Your task to perform on an android device: turn on notifications settings in the gmail app Image 0: 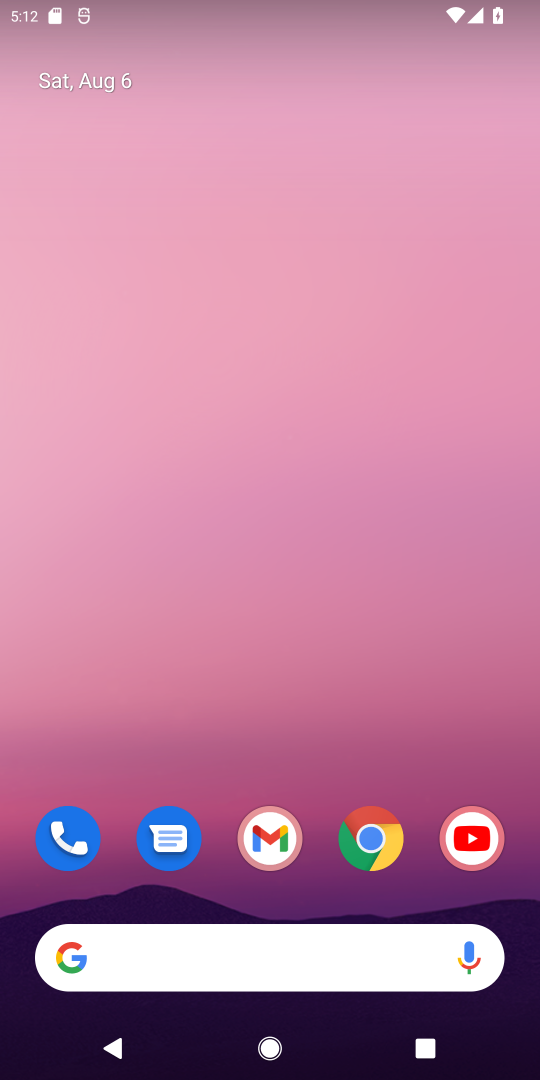
Step 0: press home button
Your task to perform on an android device: turn on notifications settings in the gmail app Image 1: 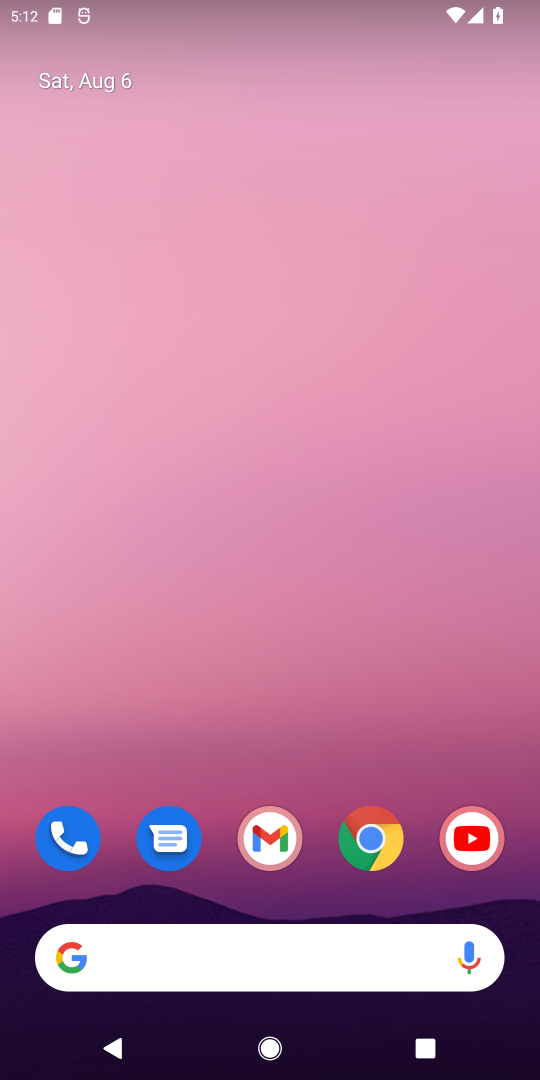
Step 1: click (272, 856)
Your task to perform on an android device: turn on notifications settings in the gmail app Image 2: 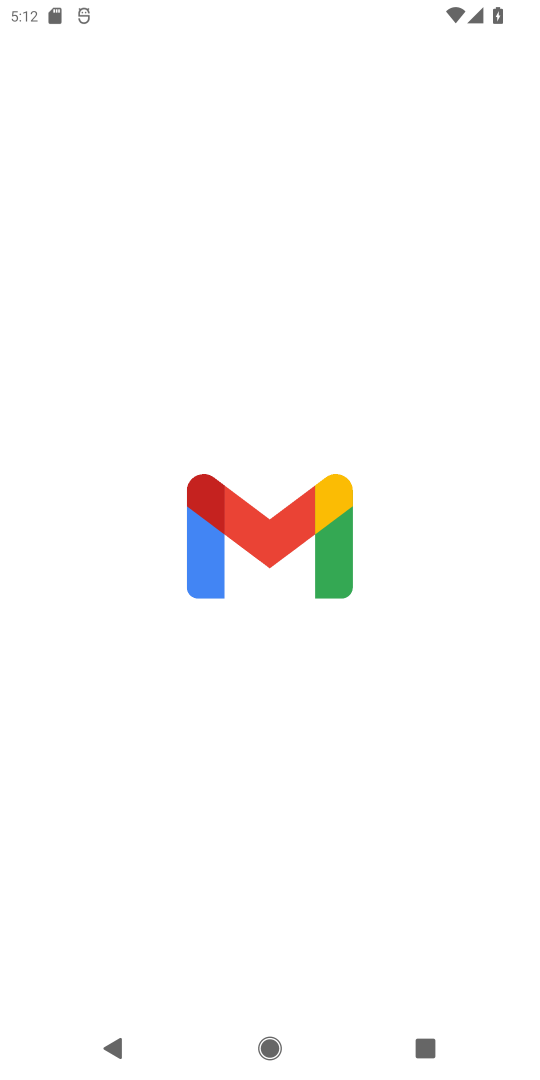
Step 2: click (275, 491)
Your task to perform on an android device: turn on notifications settings in the gmail app Image 3: 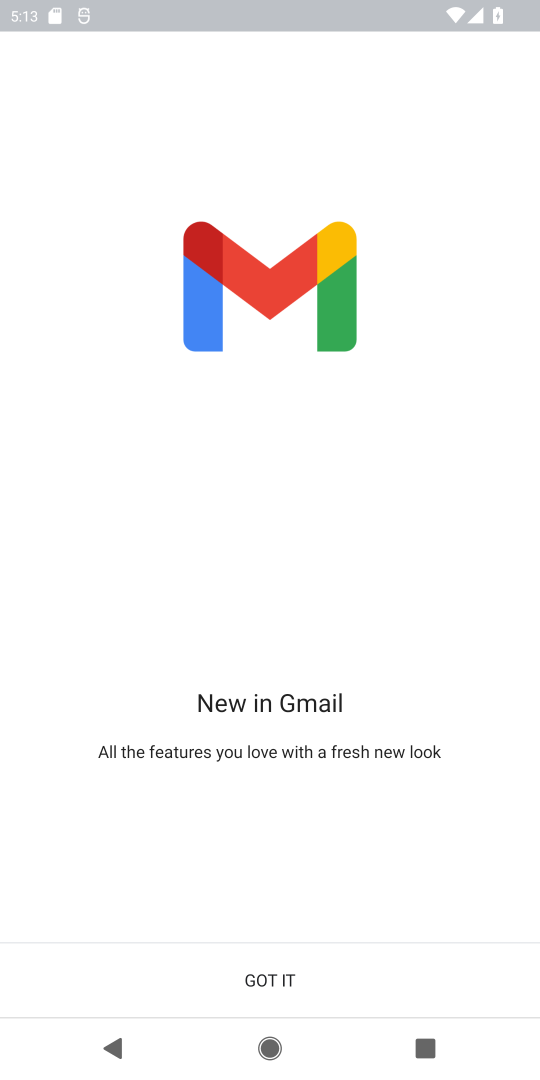
Step 3: click (277, 963)
Your task to perform on an android device: turn on notifications settings in the gmail app Image 4: 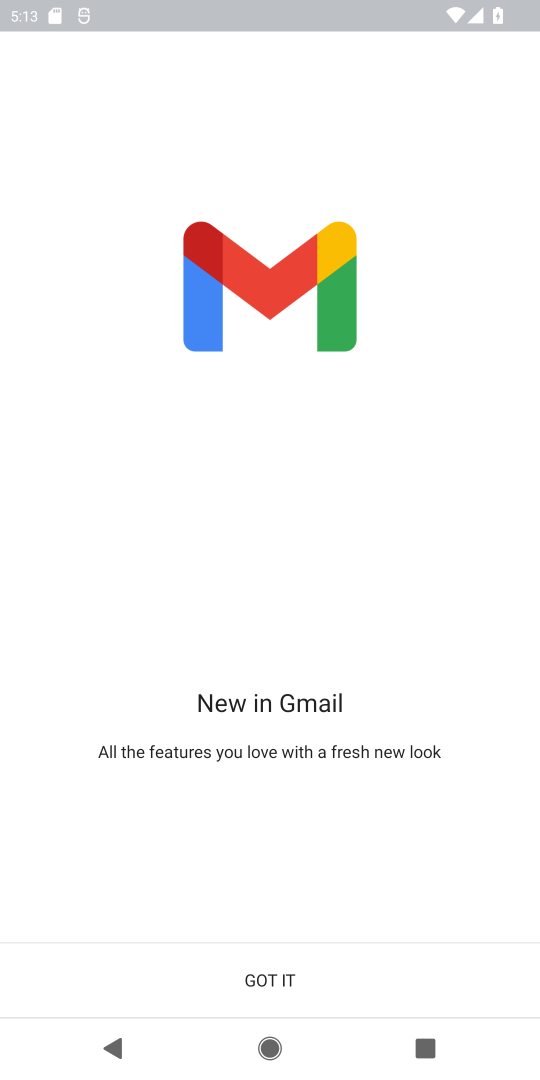
Step 4: click (278, 986)
Your task to perform on an android device: turn on notifications settings in the gmail app Image 5: 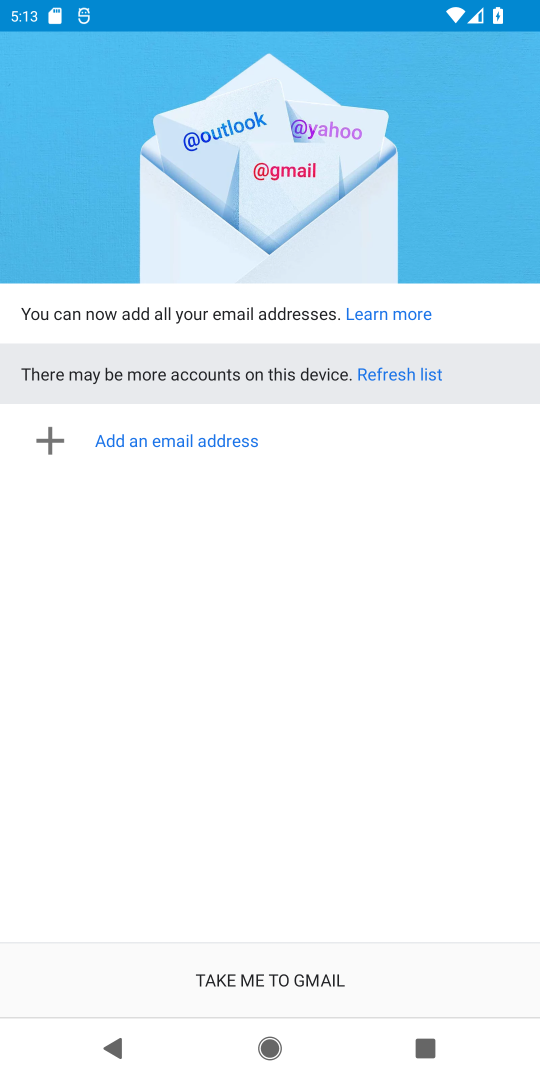
Step 5: click (271, 986)
Your task to perform on an android device: turn on notifications settings in the gmail app Image 6: 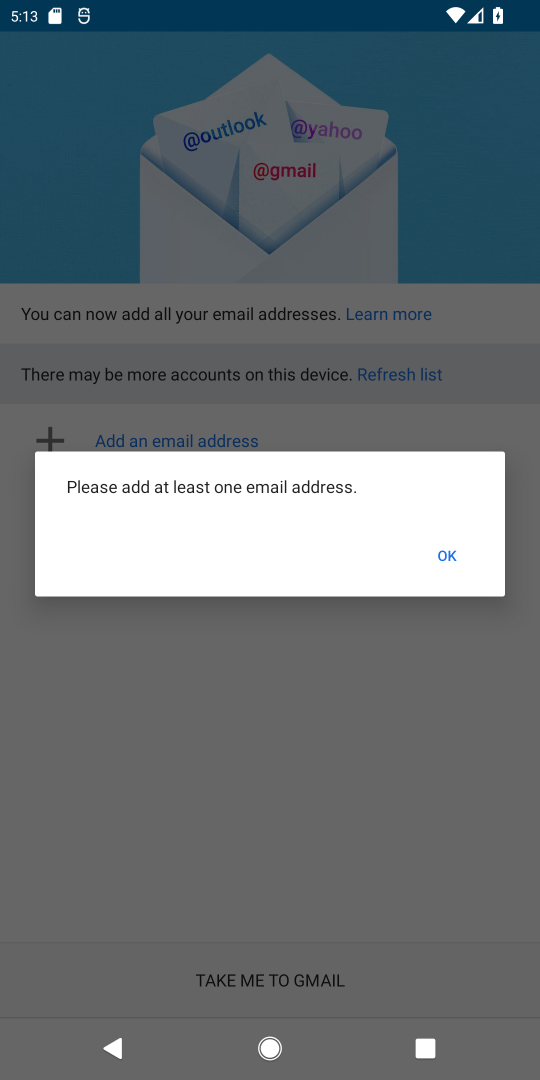
Step 6: click (451, 564)
Your task to perform on an android device: turn on notifications settings in the gmail app Image 7: 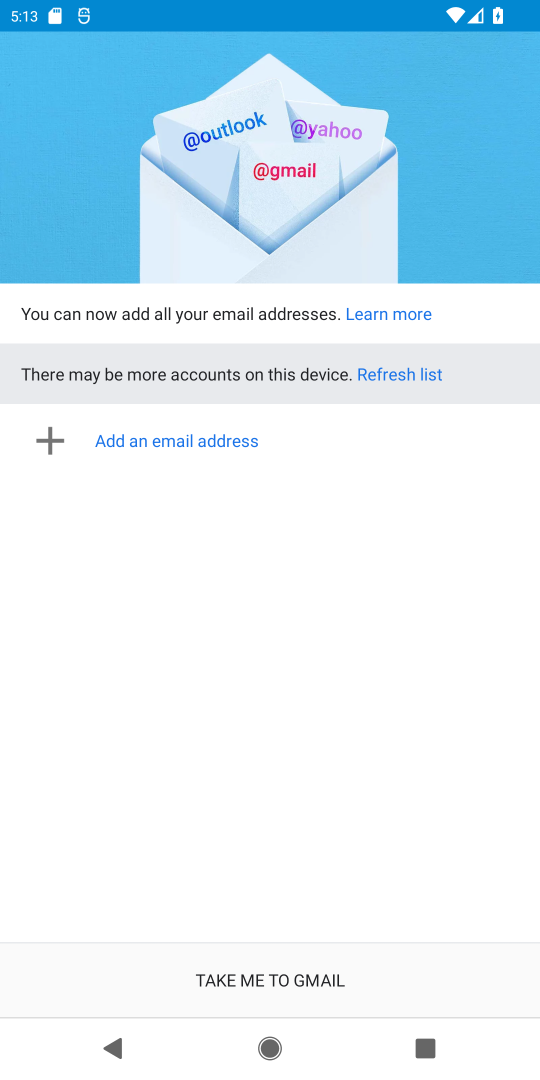
Step 7: click (406, 377)
Your task to perform on an android device: turn on notifications settings in the gmail app Image 8: 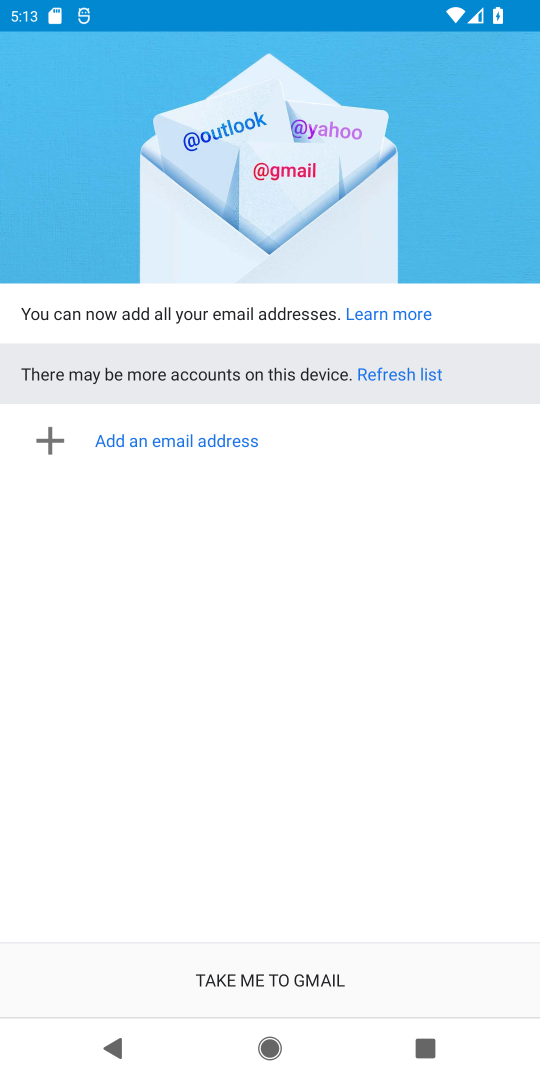
Step 8: click (260, 977)
Your task to perform on an android device: turn on notifications settings in the gmail app Image 9: 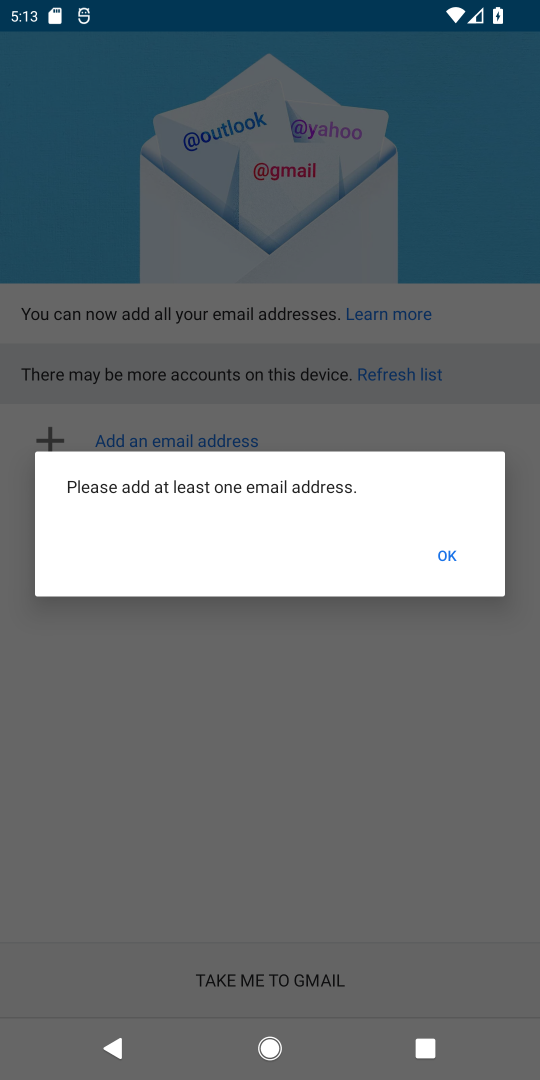
Step 9: click (451, 565)
Your task to perform on an android device: turn on notifications settings in the gmail app Image 10: 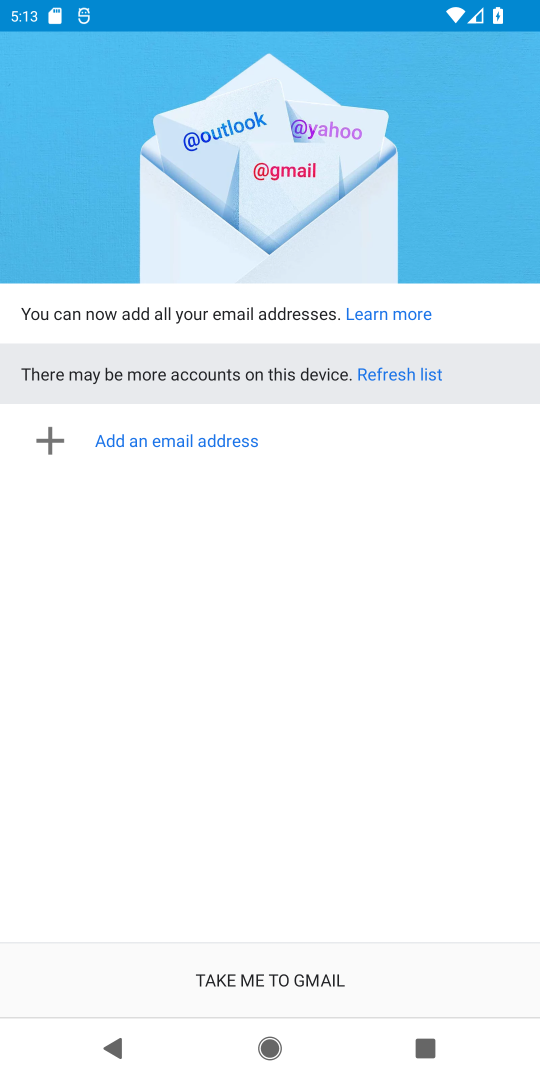
Step 10: task complete